Your task to perform on an android device: create a new album in the google photos Image 0: 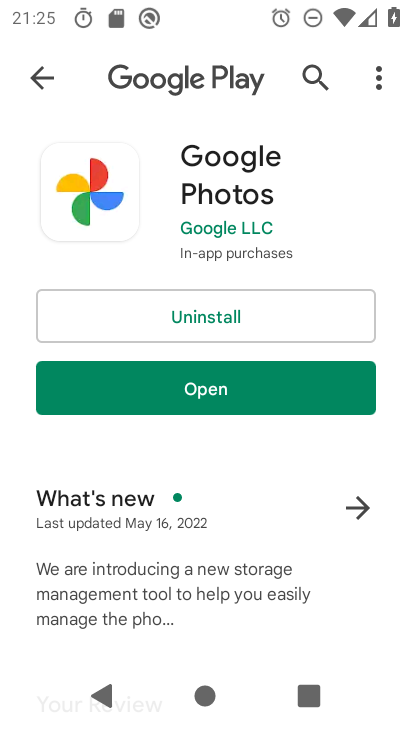
Step 0: click (347, 382)
Your task to perform on an android device: create a new album in the google photos Image 1: 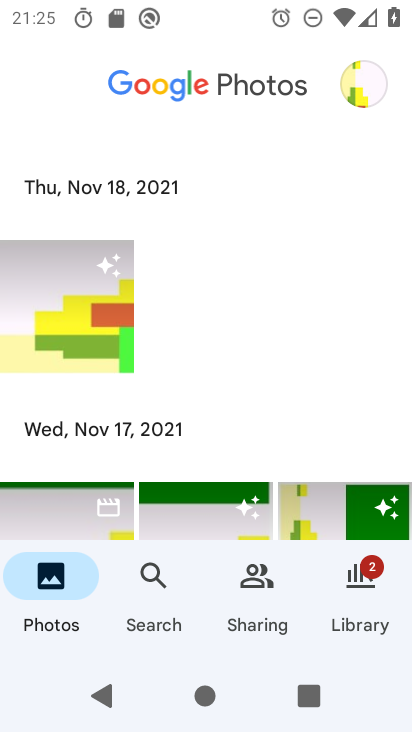
Step 1: click (381, 547)
Your task to perform on an android device: create a new album in the google photos Image 2: 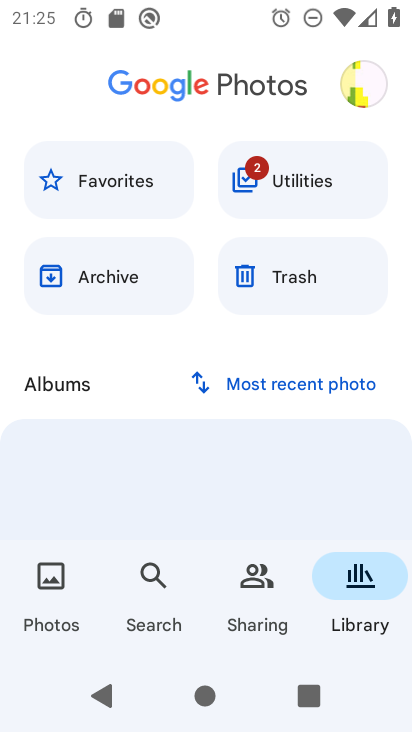
Step 2: drag from (214, 502) to (203, 193)
Your task to perform on an android device: create a new album in the google photos Image 3: 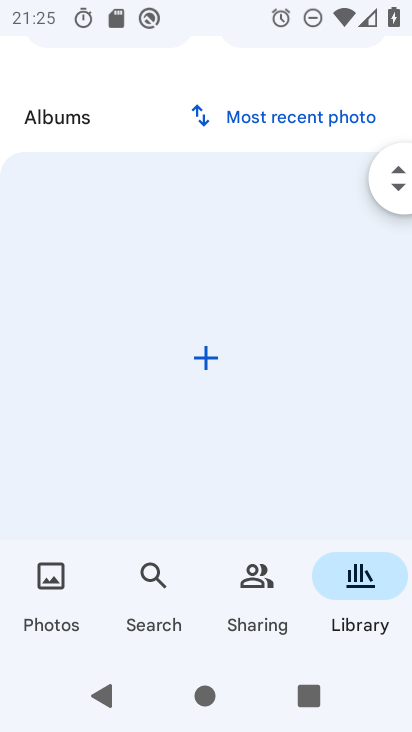
Step 3: click (213, 358)
Your task to perform on an android device: create a new album in the google photos Image 4: 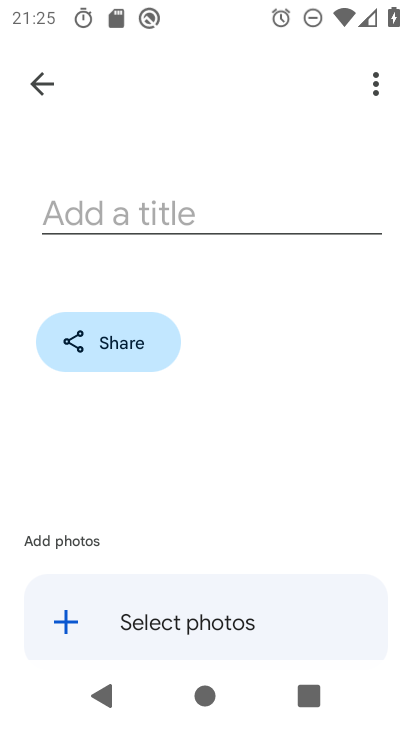
Step 4: click (194, 213)
Your task to perform on an android device: create a new album in the google photos Image 5: 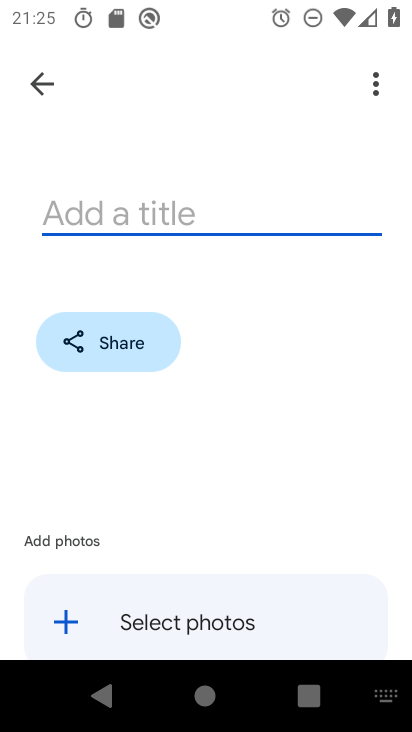
Step 5: type "cc"
Your task to perform on an android device: create a new album in the google photos Image 6: 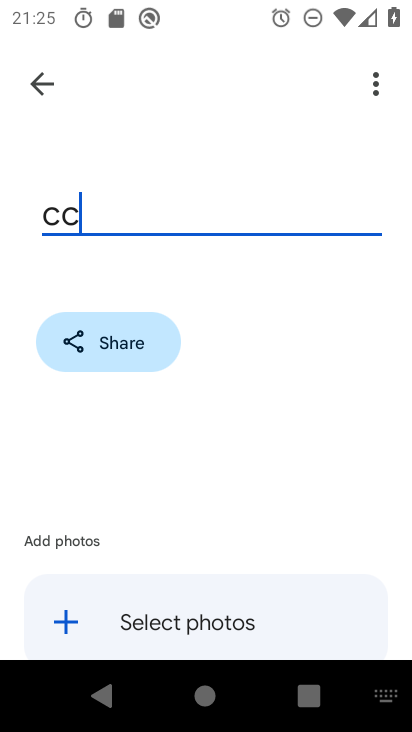
Step 6: drag from (196, 451) to (247, 264)
Your task to perform on an android device: create a new album in the google photos Image 7: 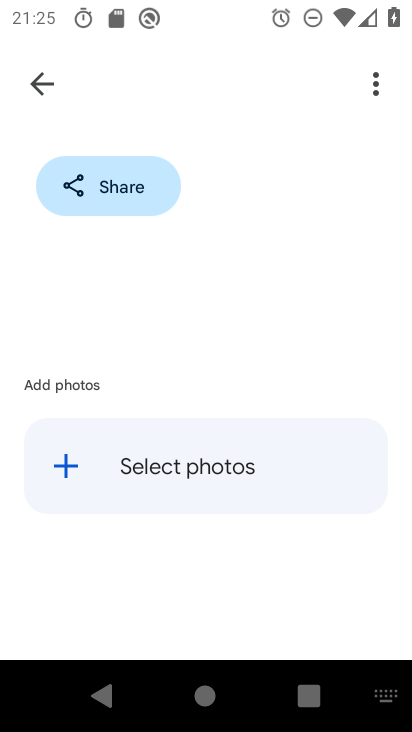
Step 7: click (161, 504)
Your task to perform on an android device: create a new album in the google photos Image 8: 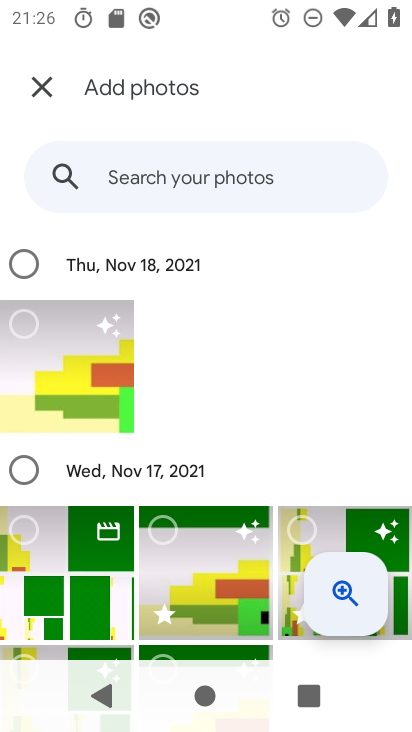
Step 8: click (24, 539)
Your task to perform on an android device: create a new album in the google photos Image 9: 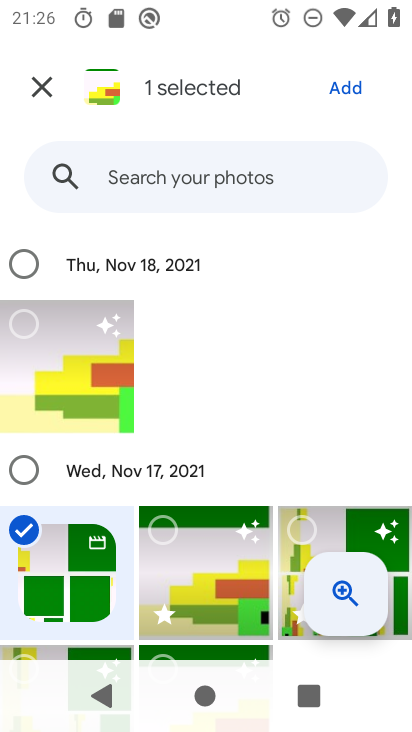
Step 9: click (162, 529)
Your task to perform on an android device: create a new album in the google photos Image 10: 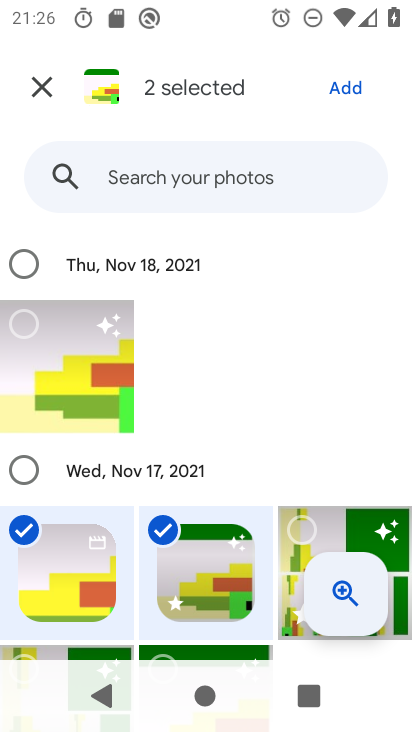
Step 10: task complete